Your task to perform on an android device: turn off sleep mode Image 0: 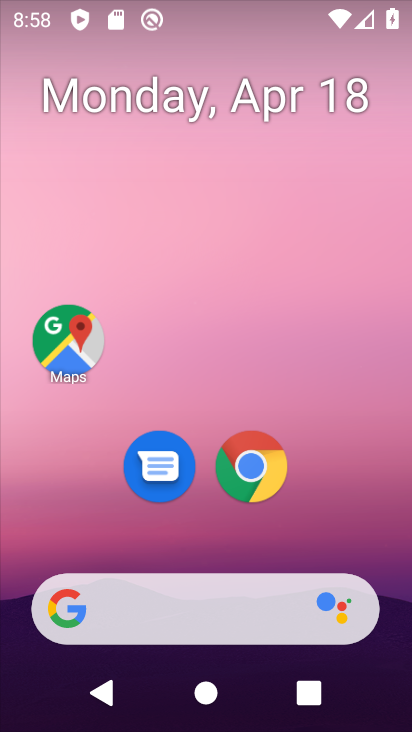
Step 0: click (245, 450)
Your task to perform on an android device: turn off sleep mode Image 1: 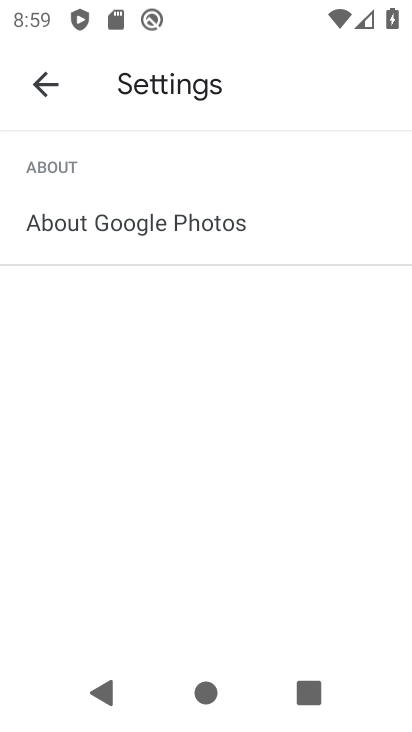
Step 1: press home button
Your task to perform on an android device: turn off sleep mode Image 2: 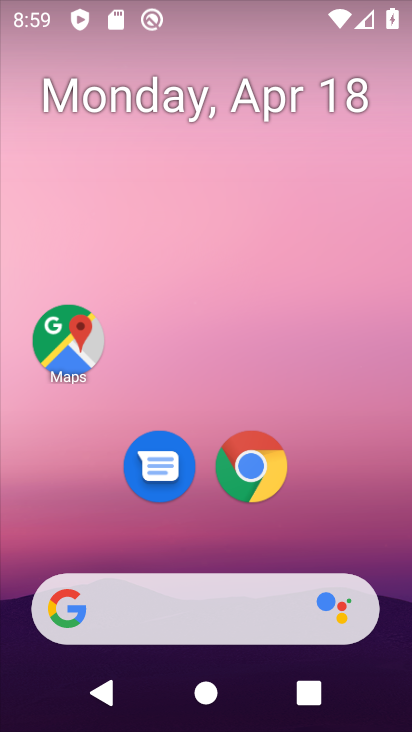
Step 2: drag from (184, 549) to (250, 53)
Your task to perform on an android device: turn off sleep mode Image 3: 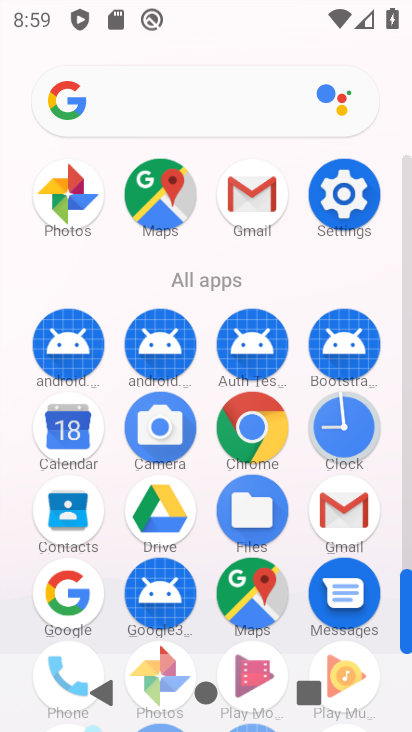
Step 3: click (343, 197)
Your task to perform on an android device: turn off sleep mode Image 4: 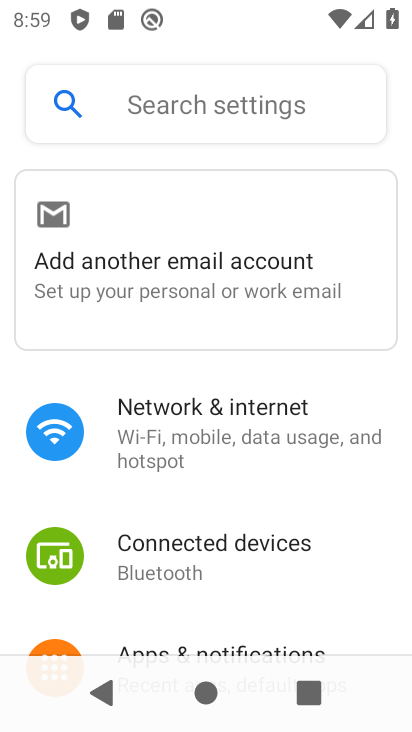
Step 4: drag from (236, 608) to (247, 168)
Your task to perform on an android device: turn off sleep mode Image 5: 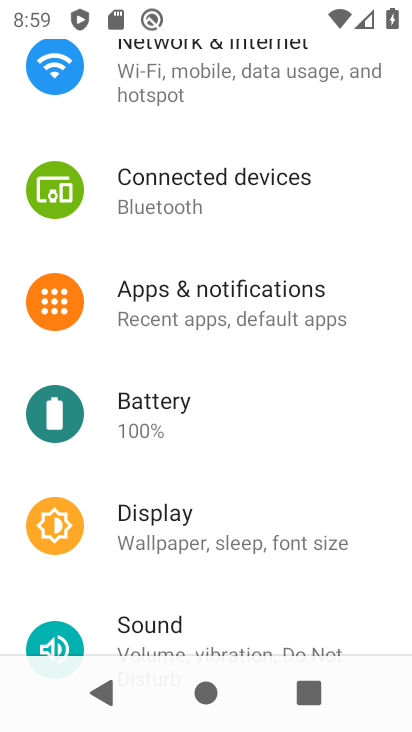
Step 5: click (206, 519)
Your task to perform on an android device: turn off sleep mode Image 6: 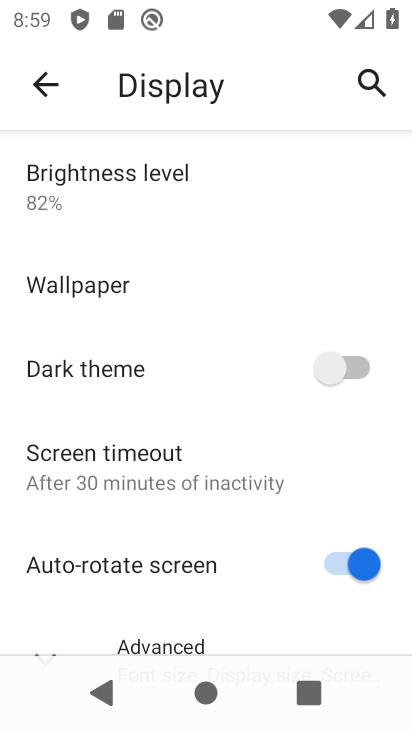
Step 6: task complete